Your task to perform on an android device: change alarm snooze length Image 0: 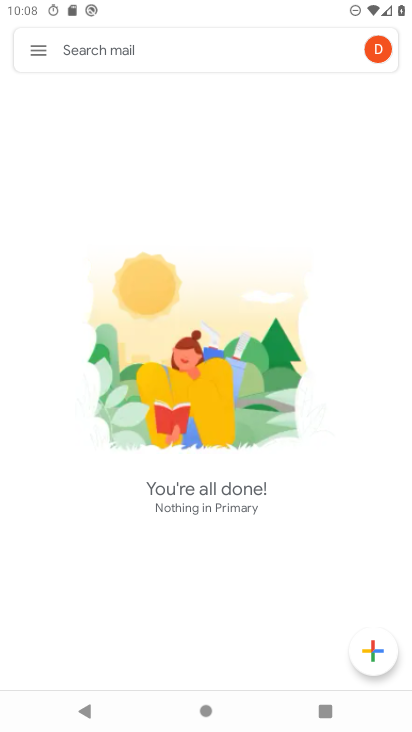
Step 0: press home button
Your task to perform on an android device: change alarm snooze length Image 1: 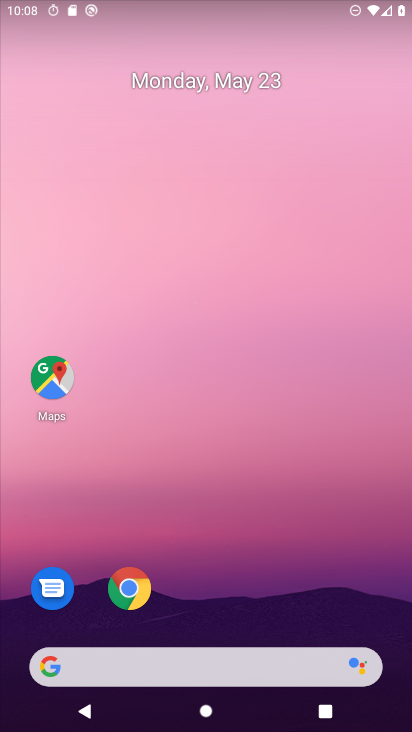
Step 1: drag from (393, 695) to (327, 241)
Your task to perform on an android device: change alarm snooze length Image 2: 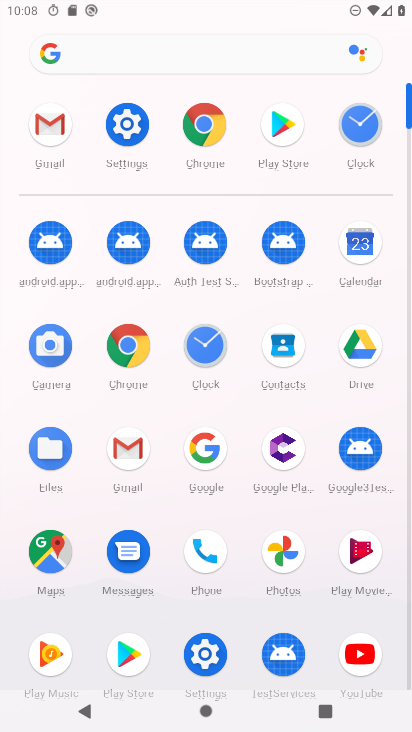
Step 2: click (108, 122)
Your task to perform on an android device: change alarm snooze length Image 3: 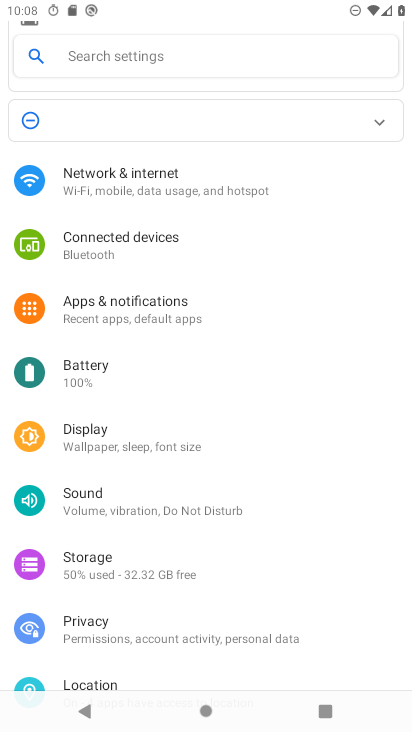
Step 3: press home button
Your task to perform on an android device: change alarm snooze length Image 4: 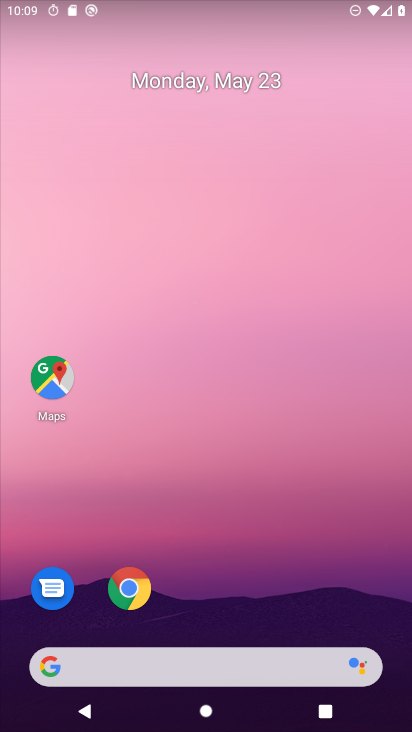
Step 4: drag from (402, 627) to (379, 198)
Your task to perform on an android device: change alarm snooze length Image 5: 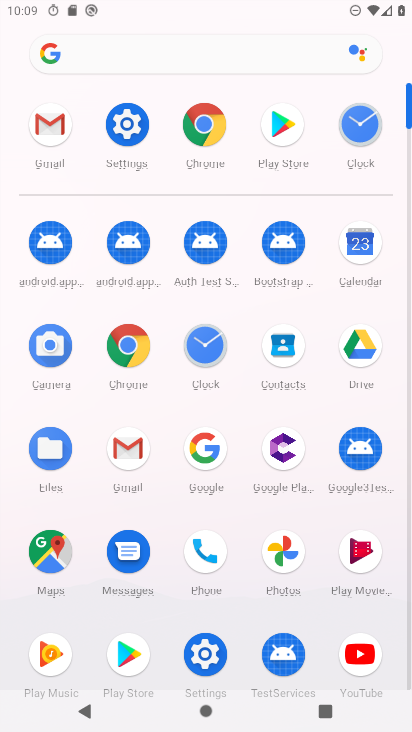
Step 5: click (211, 337)
Your task to perform on an android device: change alarm snooze length Image 6: 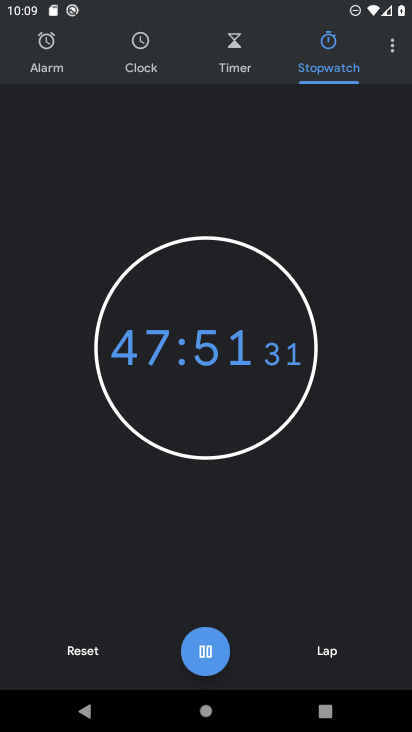
Step 6: click (38, 58)
Your task to perform on an android device: change alarm snooze length Image 7: 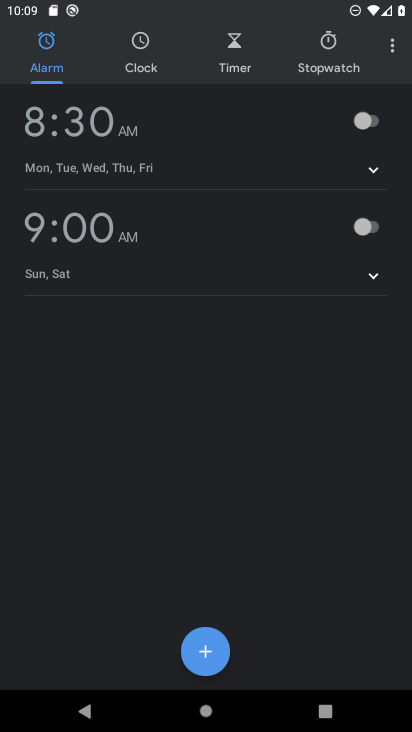
Step 7: click (388, 46)
Your task to perform on an android device: change alarm snooze length Image 8: 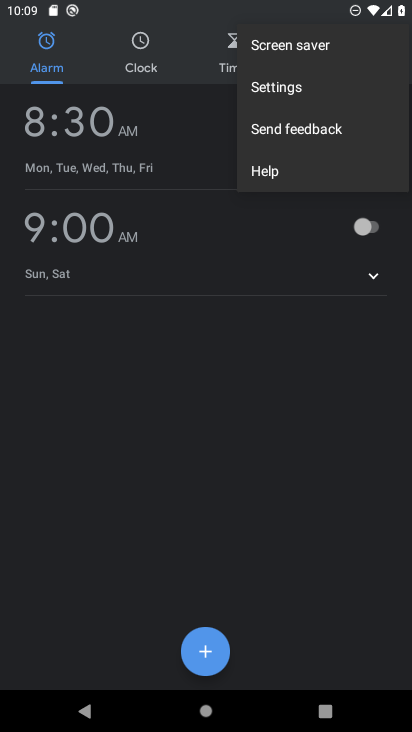
Step 8: click (274, 80)
Your task to perform on an android device: change alarm snooze length Image 9: 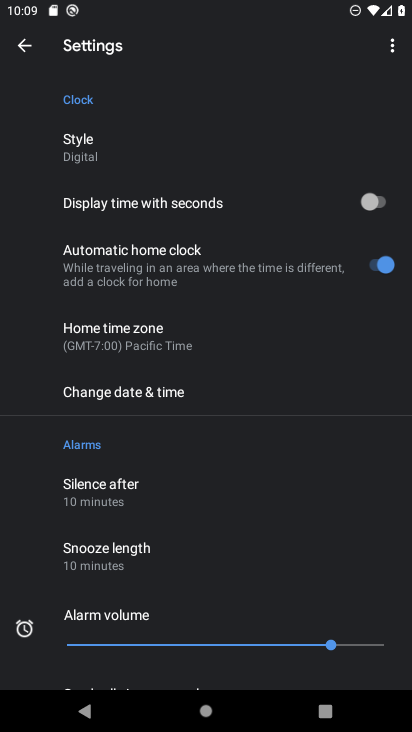
Step 9: click (294, 652)
Your task to perform on an android device: change alarm snooze length Image 10: 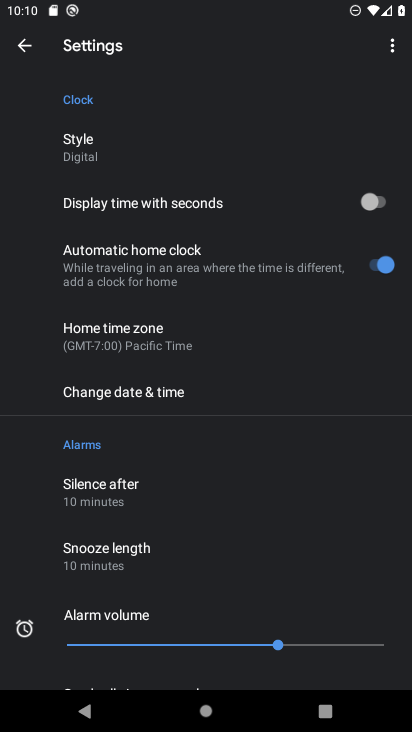
Step 10: click (95, 552)
Your task to perform on an android device: change alarm snooze length Image 11: 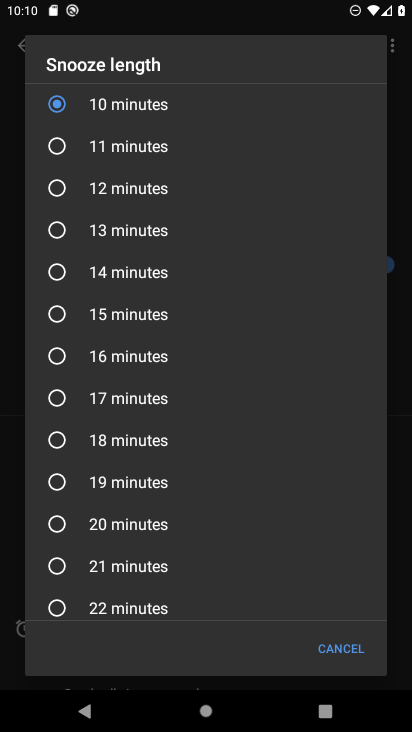
Step 11: click (57, 356)
Your task to perform on an android device: change alarm snooze length Image 12: 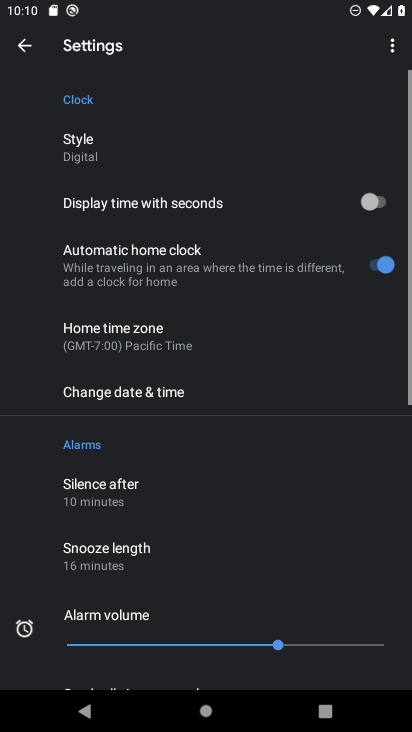
Step 12: task complete